Your task to perform on an android device: What's the weather today? Image 0: 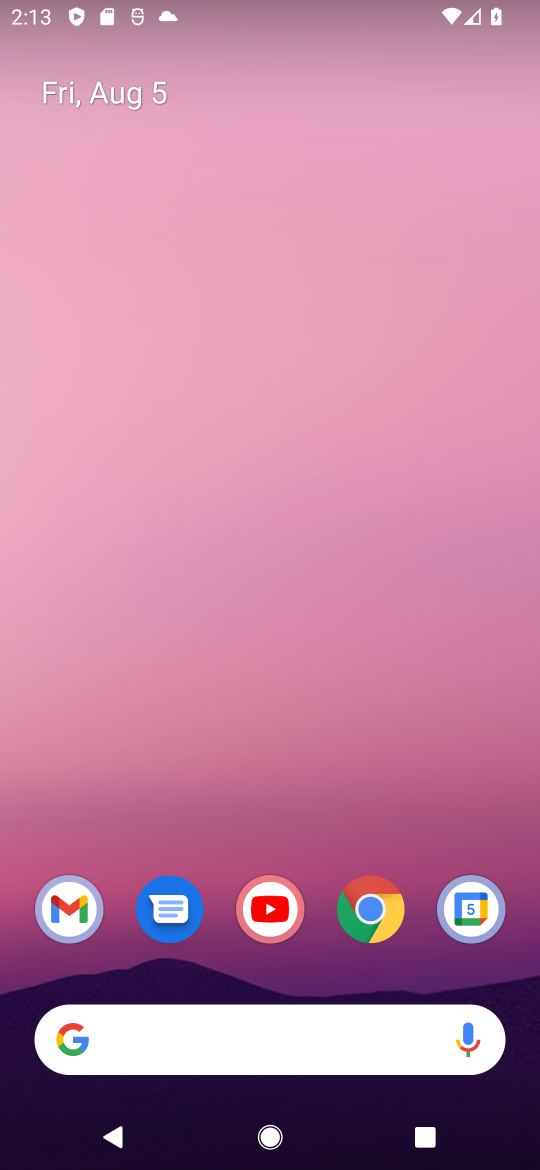
Step 0: click (170, 1047)
Your task to perform on an android device: What's the weather today? Image 1: 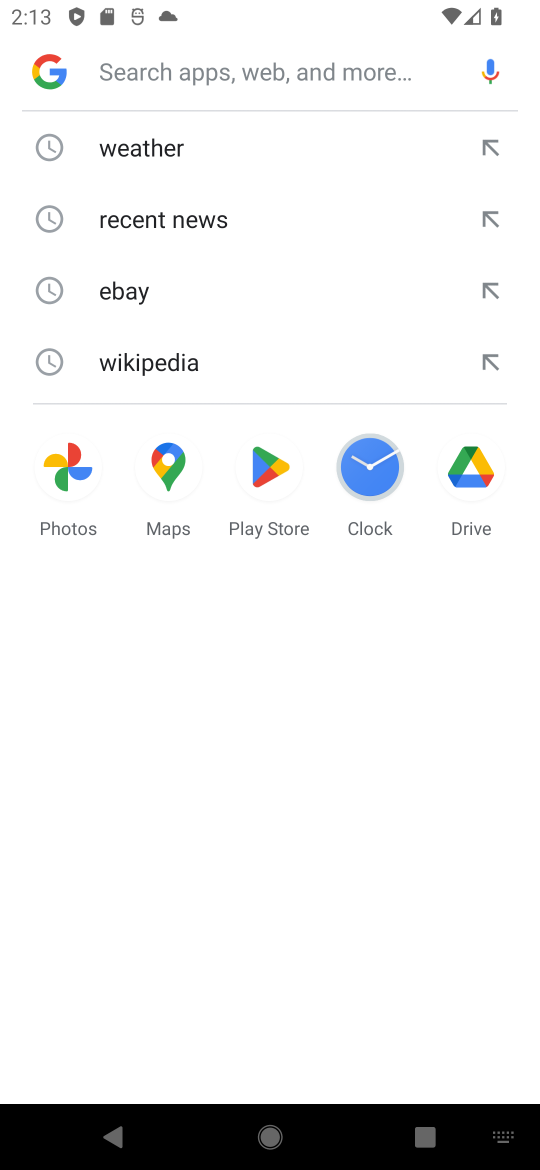
Step 1: click (191, 125)
Your task to perform on an android device: What's the weather today? Image 2: 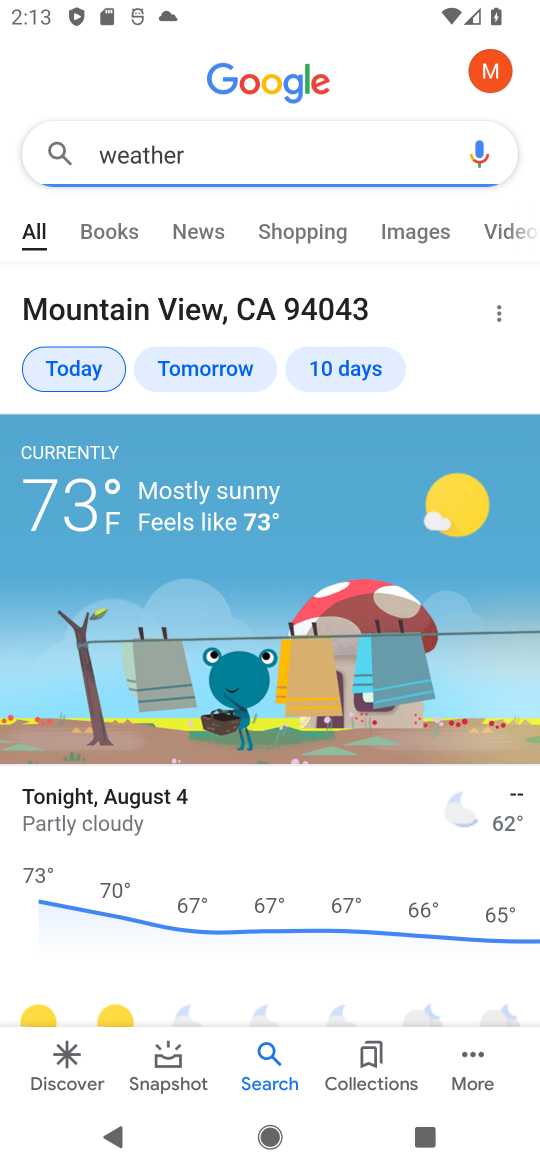
Step 2: task complete